Your task to perform on an android device: Open Amazon Image 0: 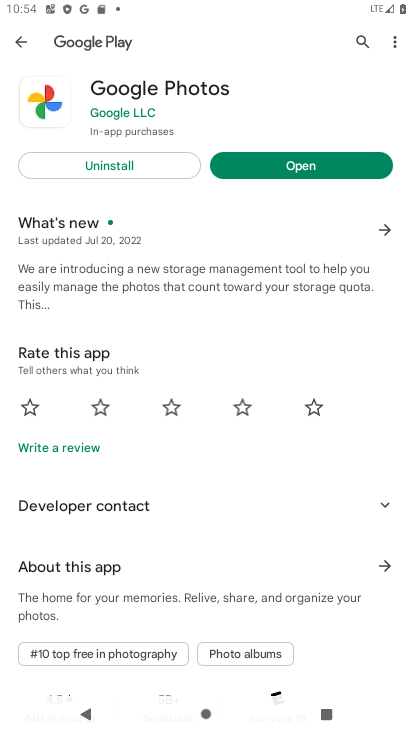
Step 0: press home button
Your task to perform on an android device: Open Amazon Image 1: 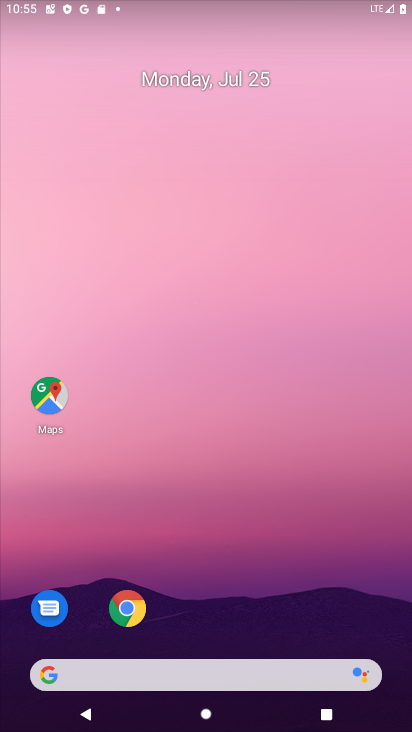
Step 1: drag from (231, 717) to (177, 204)
Your task to perform on an android device: Open Amazon Image 2: 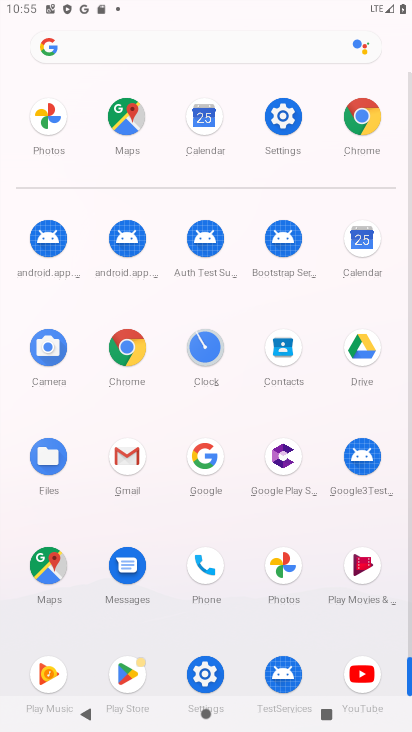
Step 2: drag from (233, 420) to (237, 316)
Your task to perform on an android device: Open Amazon Image 3: 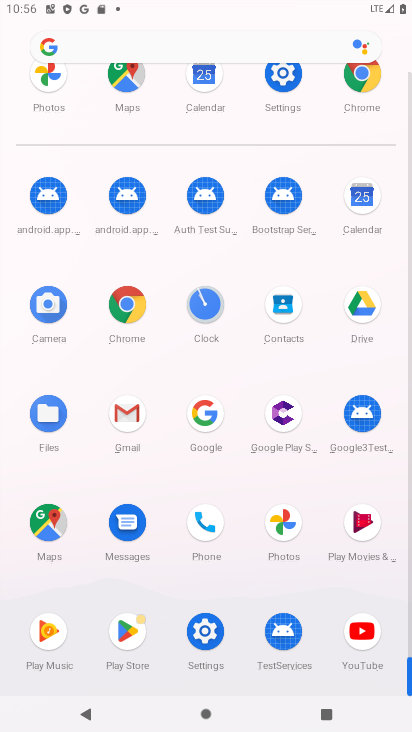
Step 3: click (119, 326)
Your task to perform on an android device: Open Amazon Image 4: 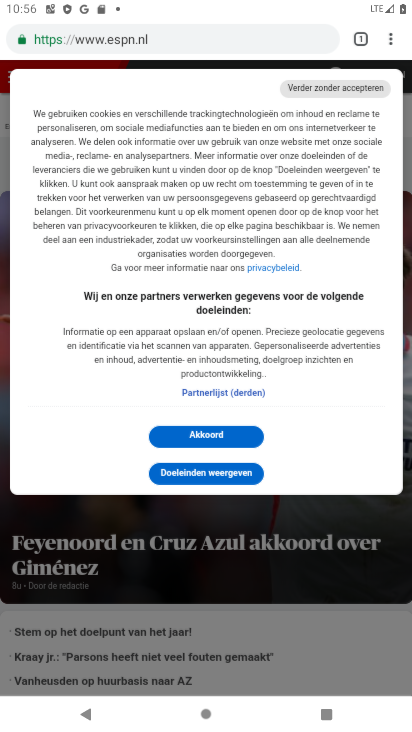
Step 4: click (218, 42)
Your task to perform on an android device: Open Amazon Image 5: 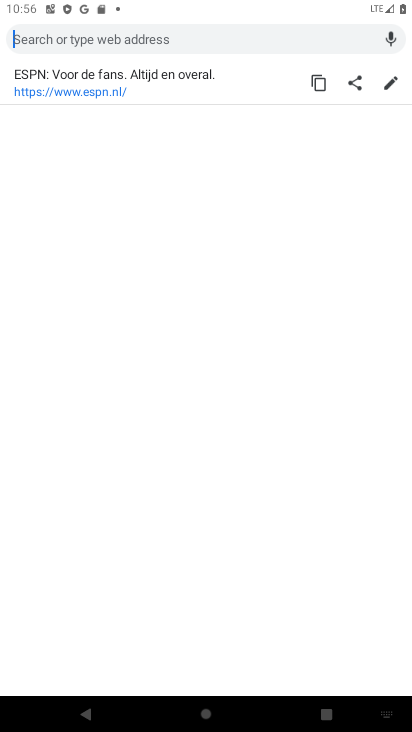
Step 5: type "amazon"
Your task to perform on an android device: Open Amazon Image 6: 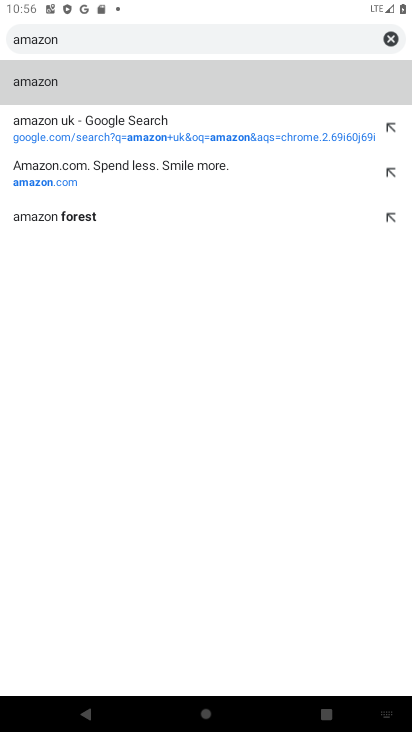
Step 6: click (109, 181)
Your task to perform on an android device: Open Amazon Image 7: 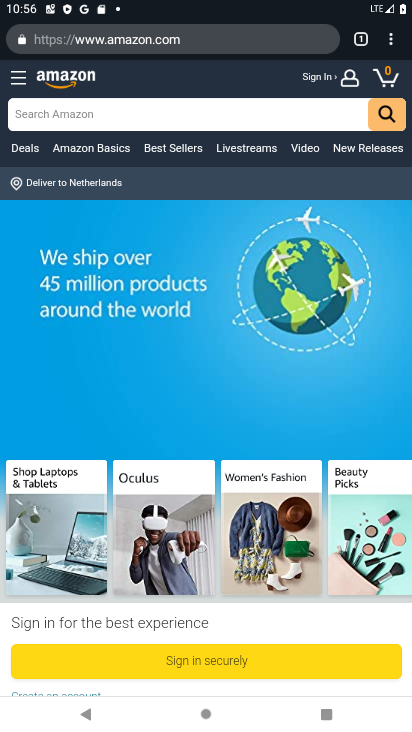
Step 7: task complete